Your task to perform on an android device: Is it going to rain tomorrow? Image 0: 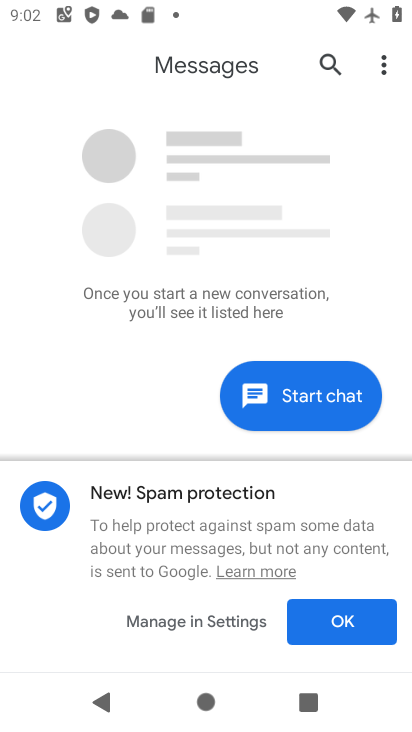
Step 0: press home button
Your task to perform on an android device: Is it going to rain tomorrow? Image 1: 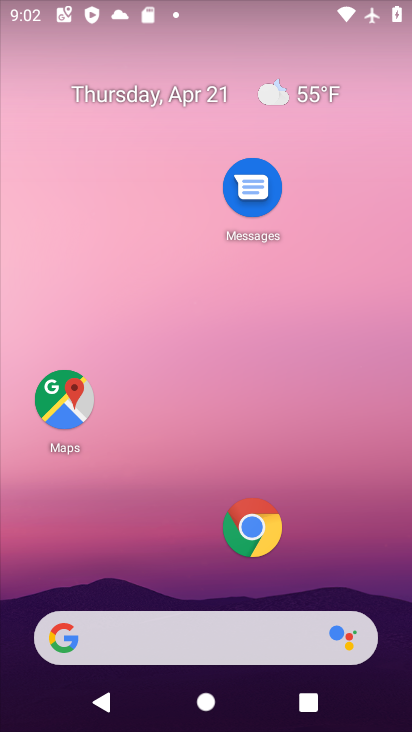
Step 1: click (324, 95)
Your task to perform on an android device: Is it going to rain tomorrow? Image 2: 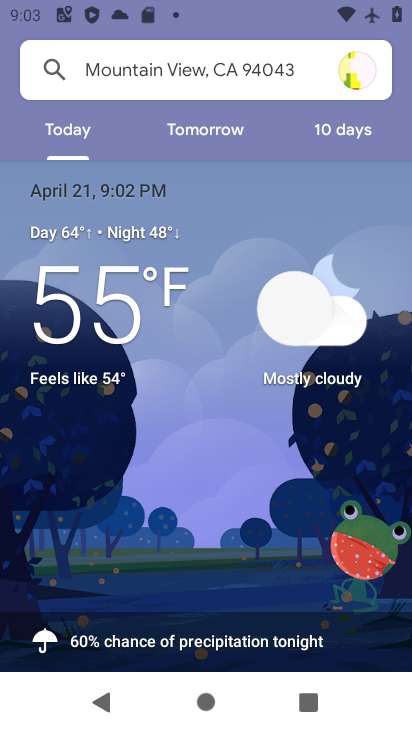
Step 2: click (200, 134)
Your task to perform on an android device: Is it going to rain tomorrow? Image 3: 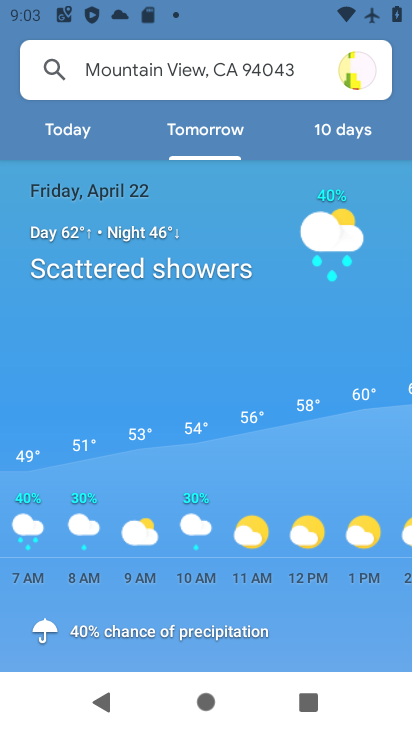
Step 3: task complete